Your task to perform on an android device: Open sound settings Image 0: 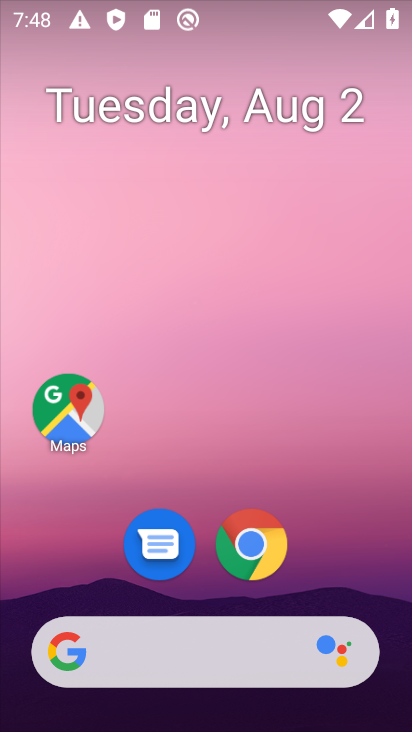
Step 0: drag from (131, 572) to (181, 157)
Your task to perform on an android device: Open sound settings Image 1: 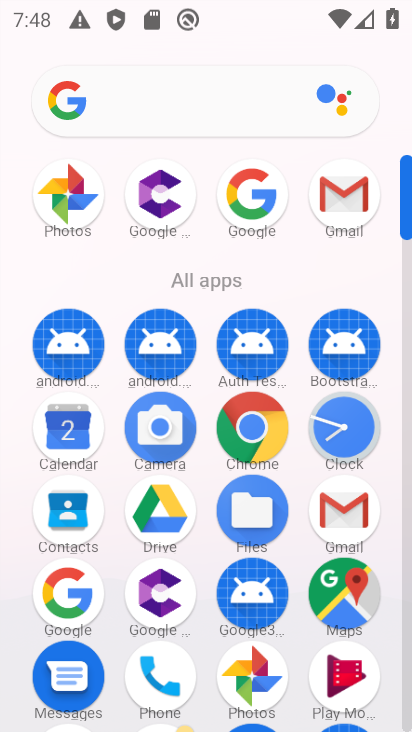
Step 1: drag from (188, 683) to (228, 330)
Your task to perform on an android device: Open sound settings Image 2: 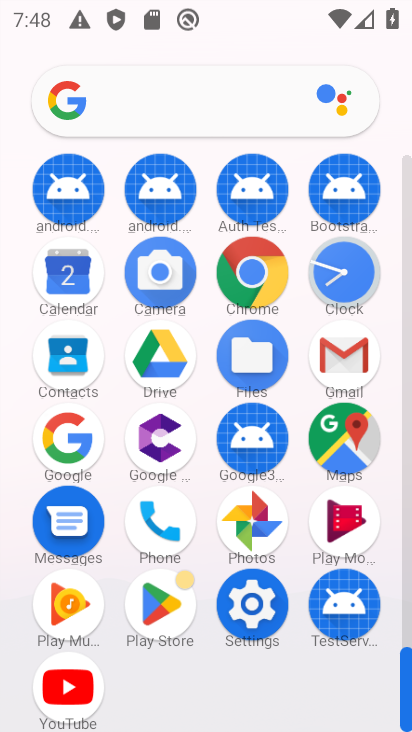
Step 2: click (237, 616)
Your task to perform on an android device: Open sound settings Image 3: 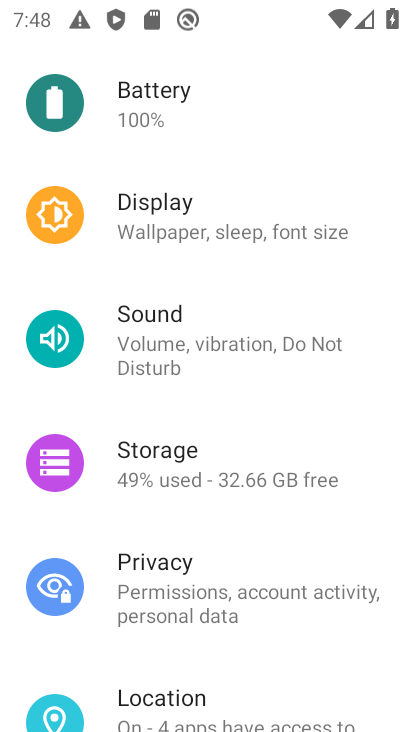
Step 3: click (159, 326)
Your task to perform on an android device: Open sound settings Image 4: 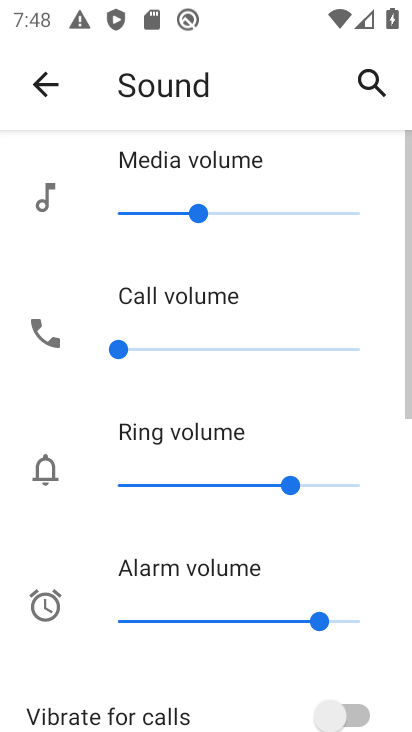
Step 4: task complete